Your task to perform on an android device: empty trash in the gmail app Image 0: 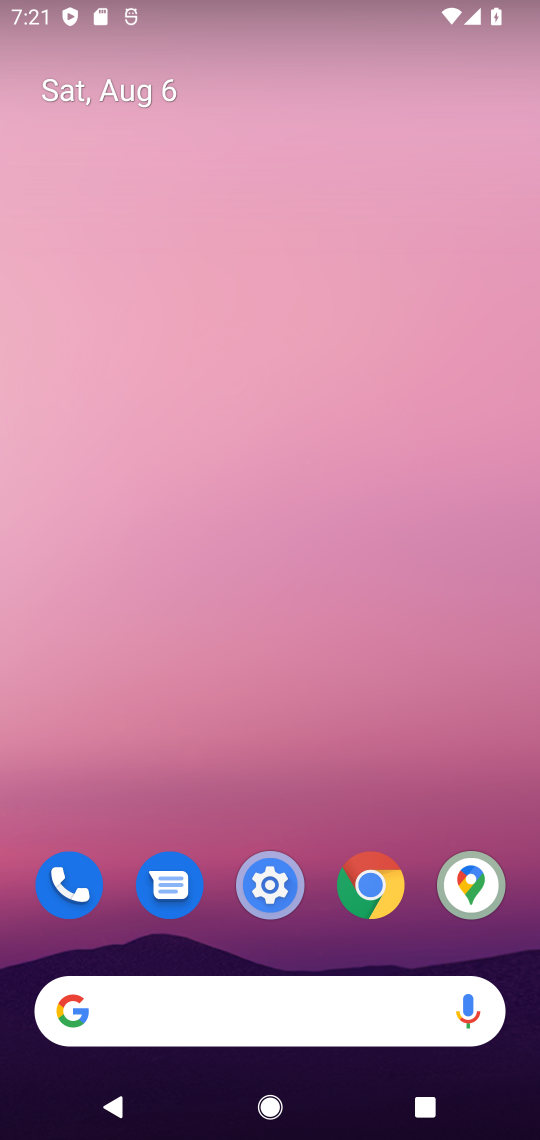
Step 0: drag from (245, 965) to (279, 3)
Your task to perform on an android device: empty trash in the gmail app Image 1: 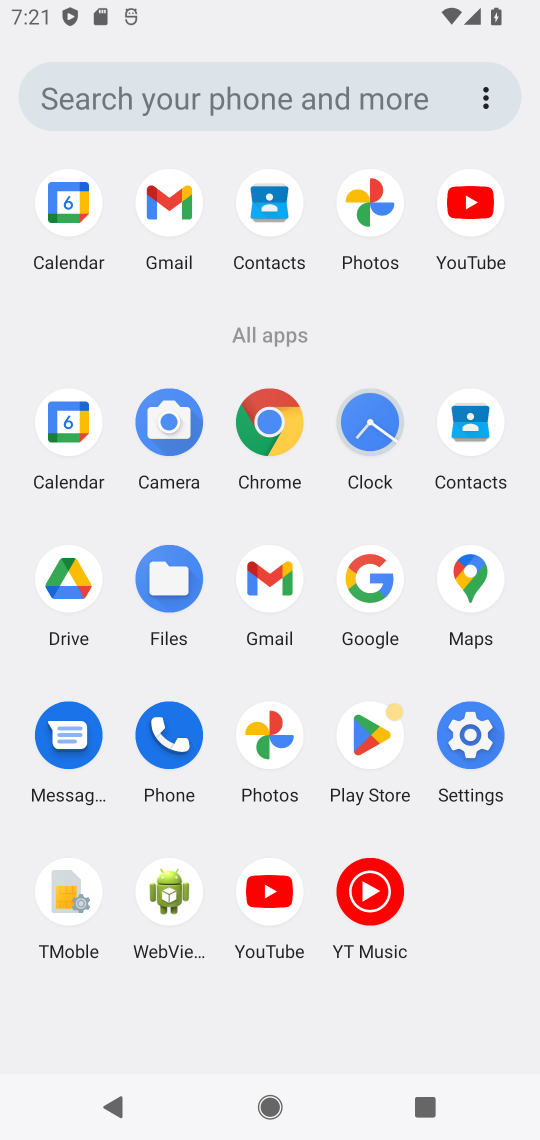
Step 1: click (161, 216)
Your task to perform on an android device: empty trash in the gmail app Image 2: 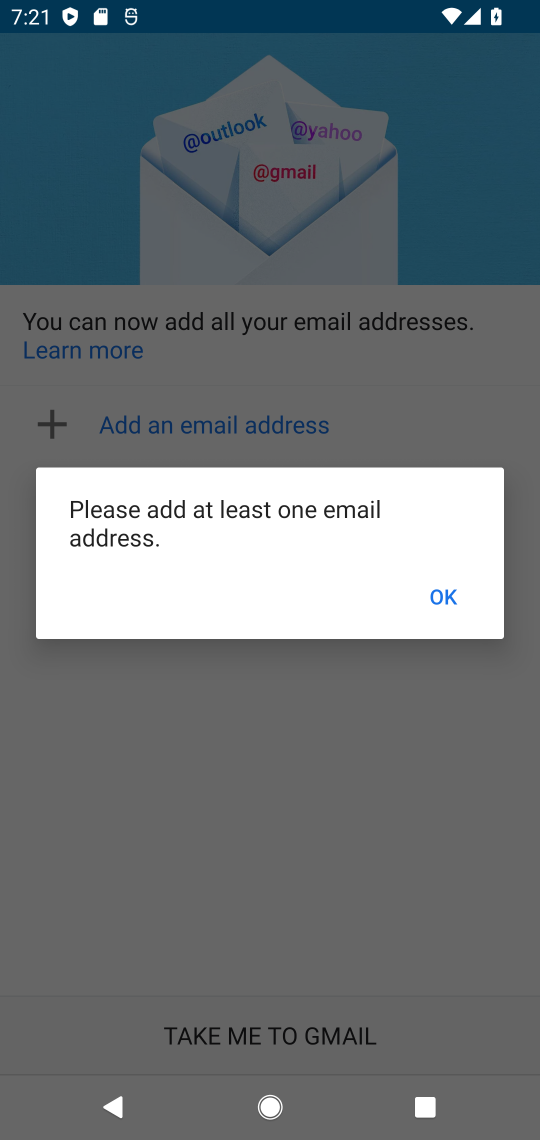
Step 2: task complete